Your task to perform on an android device: change text size in settings app Image 0: 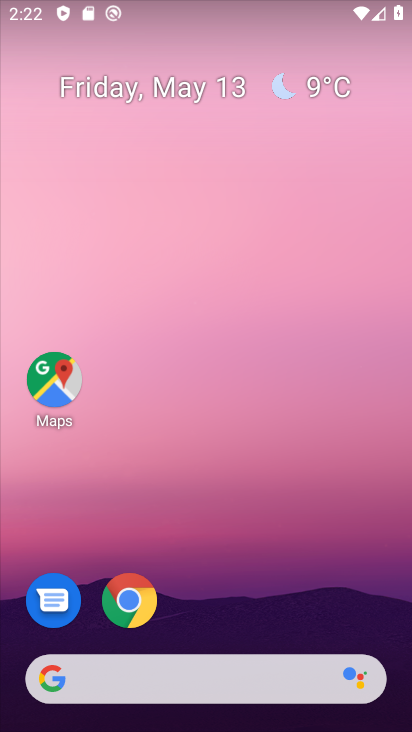
Step 0: drag from (236, 609) to (259, 21)
Your task to perform on an android device: change text size in settings app Image 1: 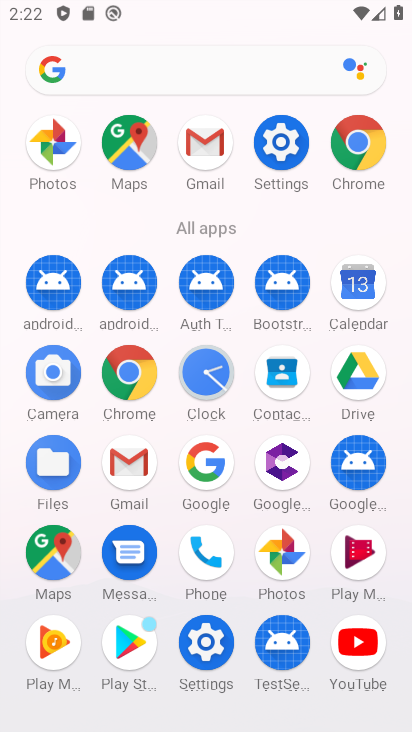
Step 1: click (277, 136)
Your task to perform on an android device: change text size in settings app Image 2: 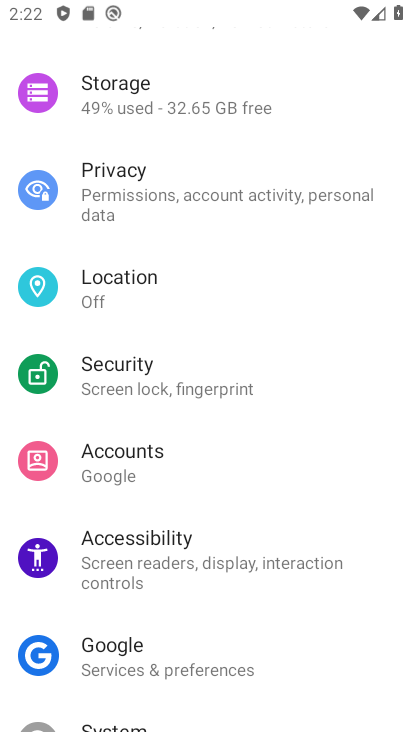
Step 2: click (36, 147)
Your task to perform on an android device: change text size in settings app Image 3: 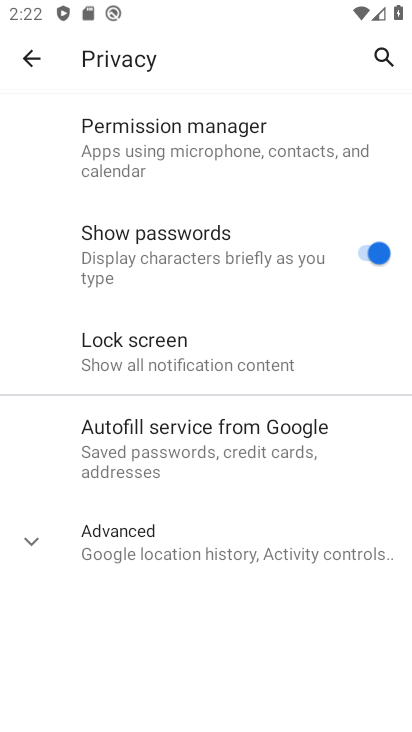
Step 3: click (35, 59)
Your task to perform on an android device: change text size in settings app Image 4: 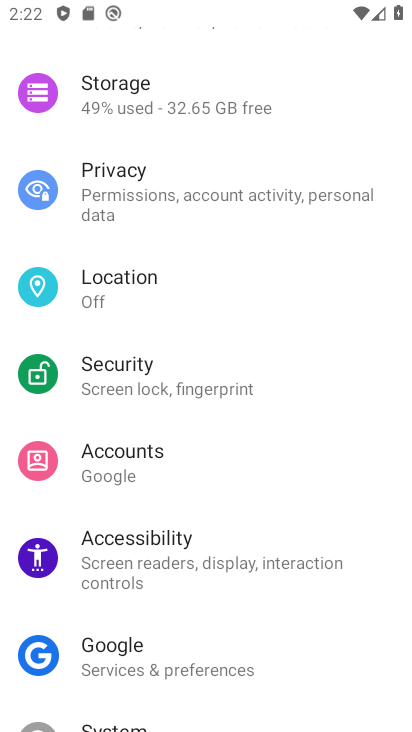
Step 4: drag from (237, 182) to (332, 105)
Your task to perform on an android device: change text size in settings app Image 5: 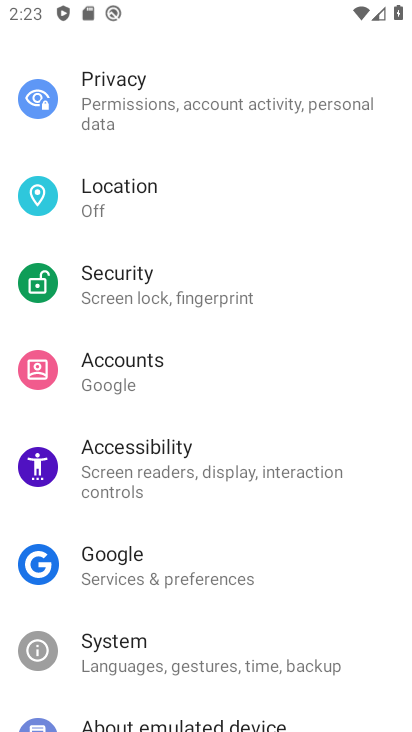
Step 5: drag from (182, 167) to (224, 449)
Your task to perform on an android device: change text size in settings app Image 6: 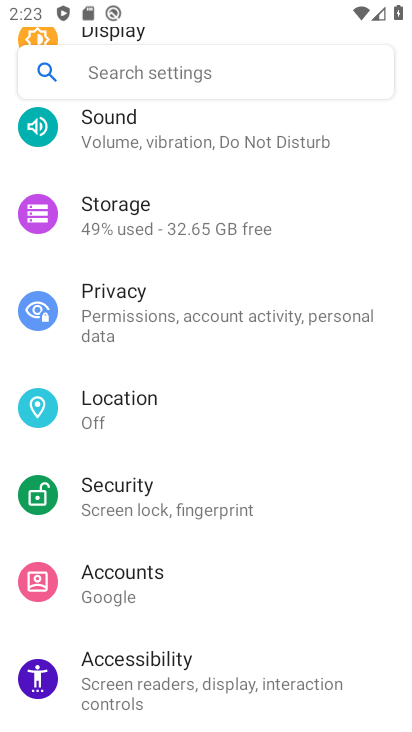
Step 6: drag from (218, 236) to (200, 605)
Your task to perform on an android device: change text size in settings app Image 7: 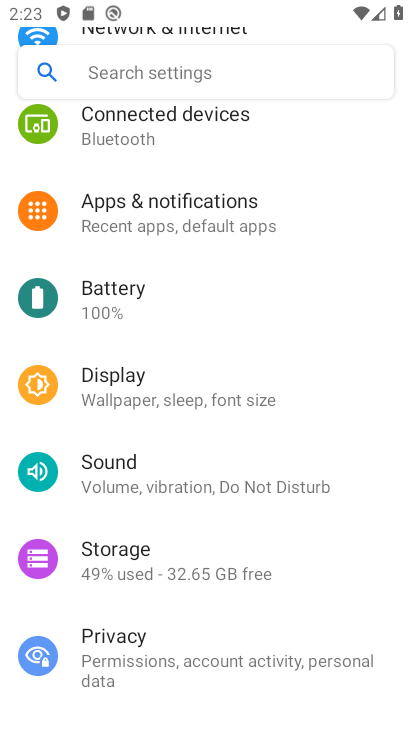
Step 7: click (160, 391)
Your task to perform on an android device: change text size in settings app Image 8: 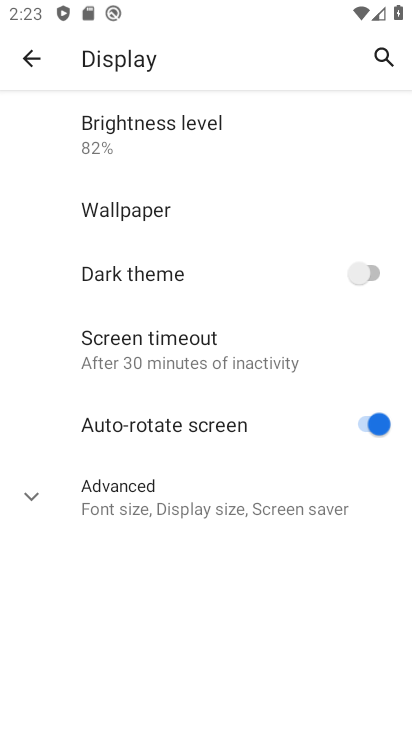
Step 8: drag from (227, 307) to (240, 587)
Your task to perform on an android device: change text size in settings app Image 9: 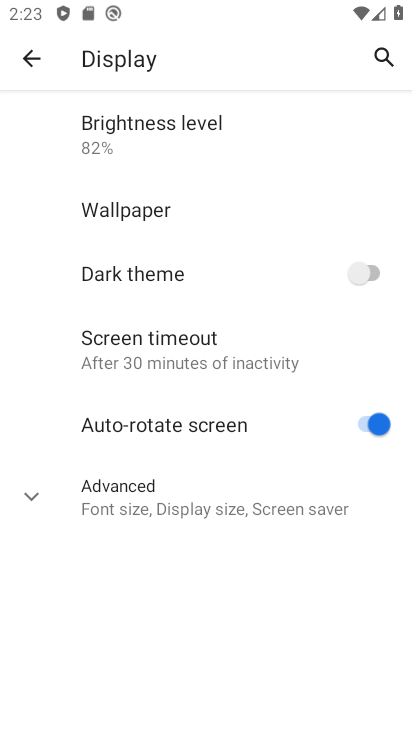
Step 9: click (207, 495)
Your task to perform on an android device: change text size in settings app Image 10: 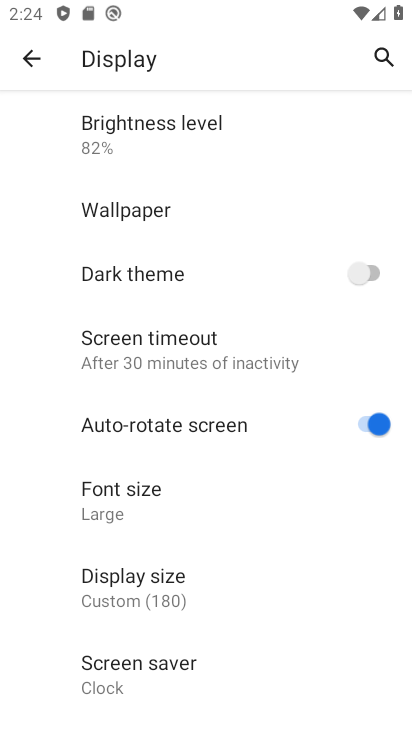
Step 10: click (140, 498)
Your task to perform on an android device: change text size in settings app Image 11: 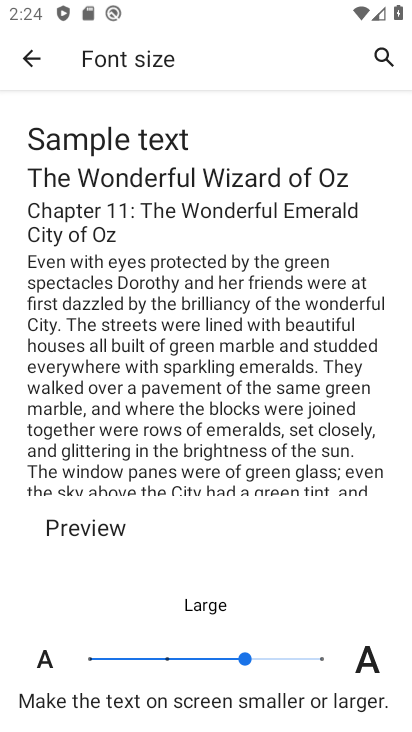
Step 11: click (166, 660)
Your task to perform on an android device: change text size in settings app Image 12: 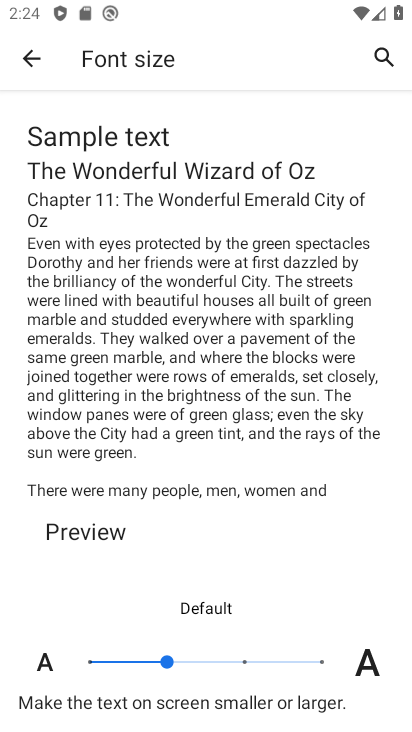
Step 12: task complete